Your task to perform on an android device: turn on javascript in the chrome app Image 0: 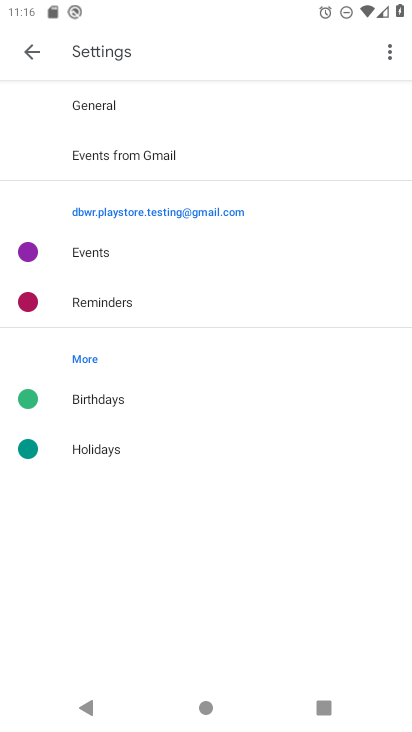
Step 0: press home button
Your task to perform on an android device: turn on javascript in the chrome app Image 1: 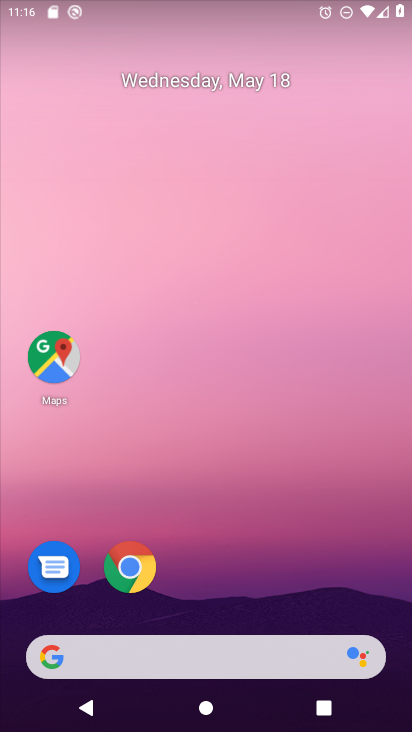
Step 1: drag from (280, 674) to (281, 169)
Your task to perform on an android device: turn on javascript in the chrome app Image 2: 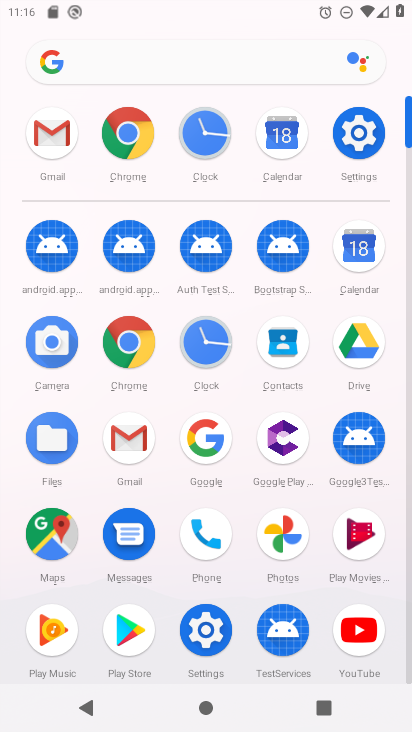
Step 2: click (126, 152)
Your task to perform on an android device: turn on javascript in the chrome app Image 3: 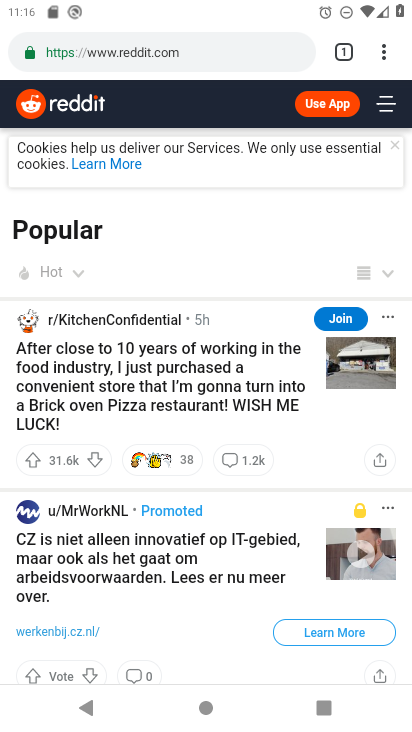
Step 3: click (388, 59)
Your task to perform on an android device: turn on javascript in the chrome app Image 4: 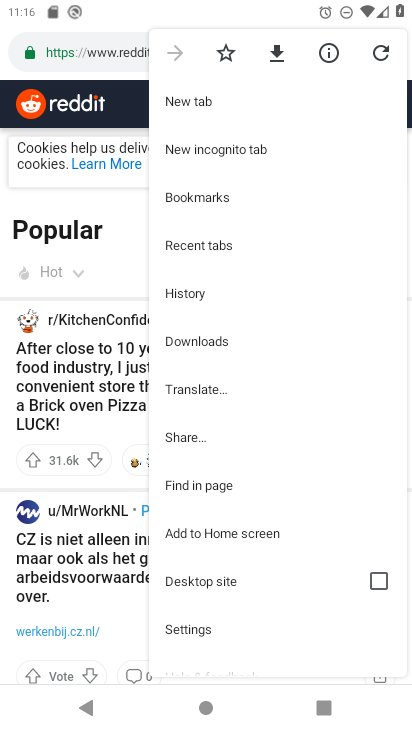
Step 4: click (185, 636)
Your task to perform on an android device: turn on javascript in the chrome app Image 5: 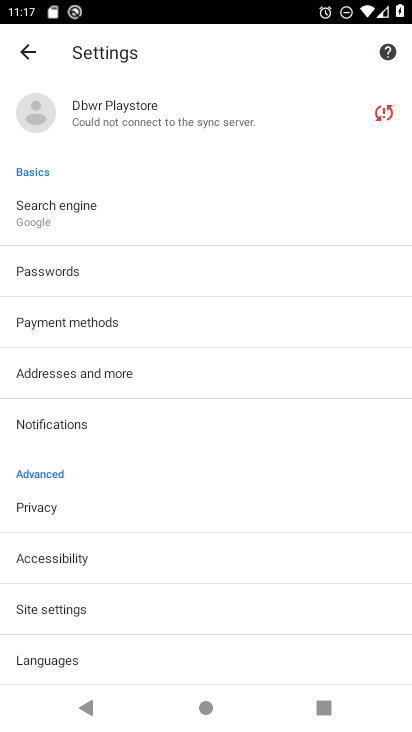
Step 5: click (61, 606)
Your task to perform on an android device: turn on javascript in the chrome app Image 6: 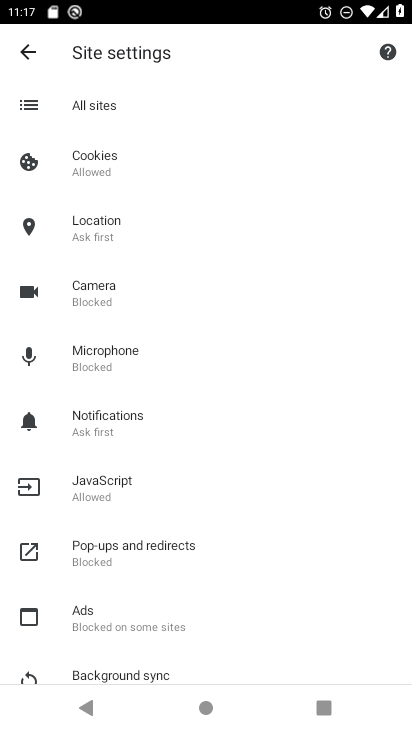
Step 6: click (95, 477)
Your task to perform on an android device: turn on javascript in the chrome app Image 7: 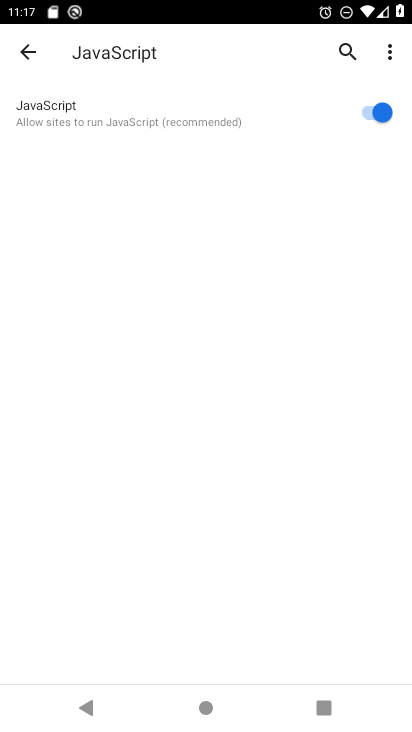
Step 7: click (353, 109)
Your task to perform on an android device: turn on javascript in the chrome app Image 8: 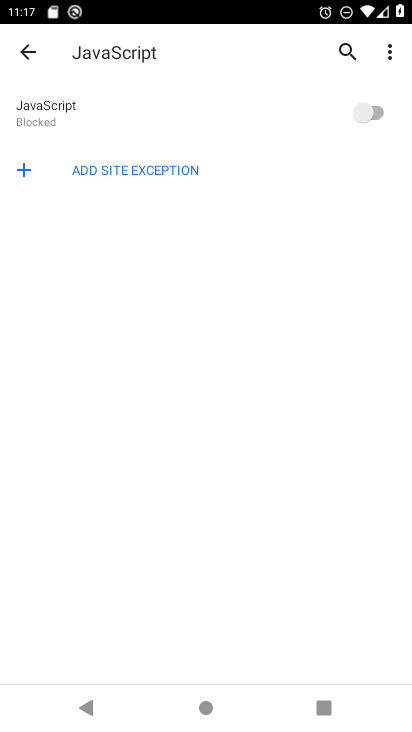
Step 8: click (356, 108)
Your task to perform on an android device: turn on javascript in the chrome app Image 9: 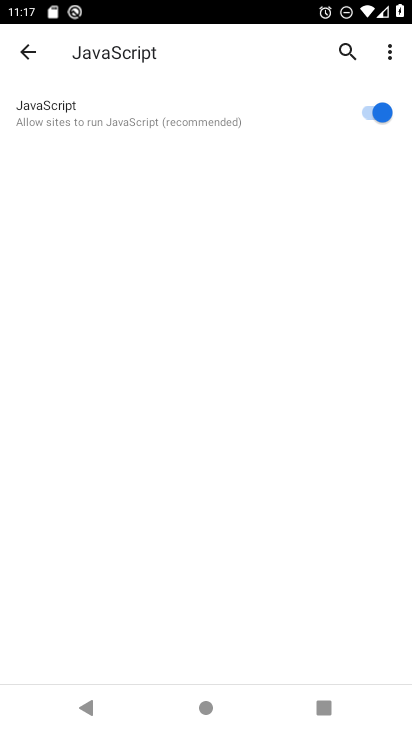
Step 9: task complete